Your task to perform on an android device: allow notifications from all sites in the chrome app Image 0: 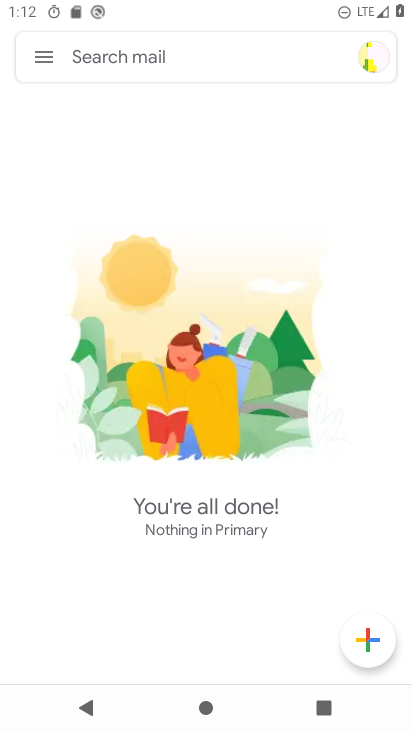
Step 0: press home button
Your task to perform on an android device: allow notifications from all sites in the chrome app Image 1: 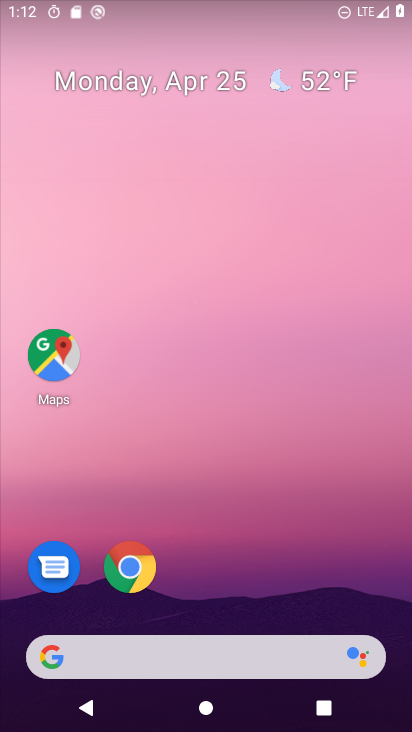
Step 1: drag from (233, 562) to (232, 49)
Your task to perform on an android device: allow notifications from all sites in the chrome app Image 2: 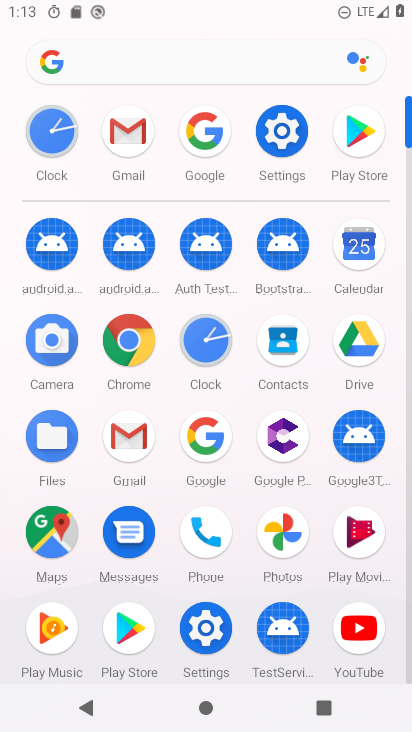
Step 2: click (134, 333)
Your task to perform on an android device: allow notifications from all sites in the chrome app Image 3: 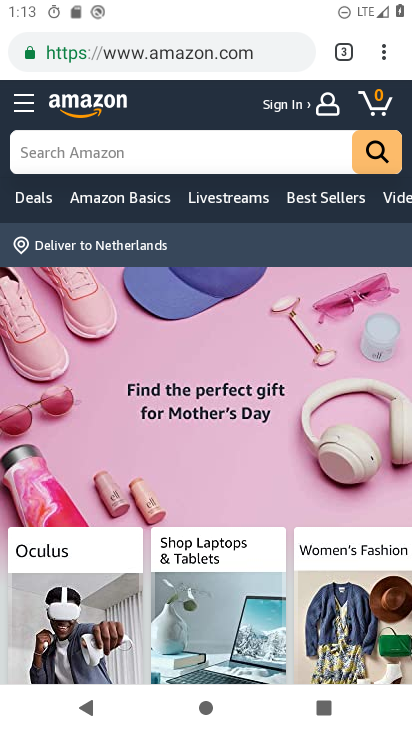
Step 3: click (385, 48)
Your task to perform on an android device: allow notifications from all sites in the chrome app Image 4: 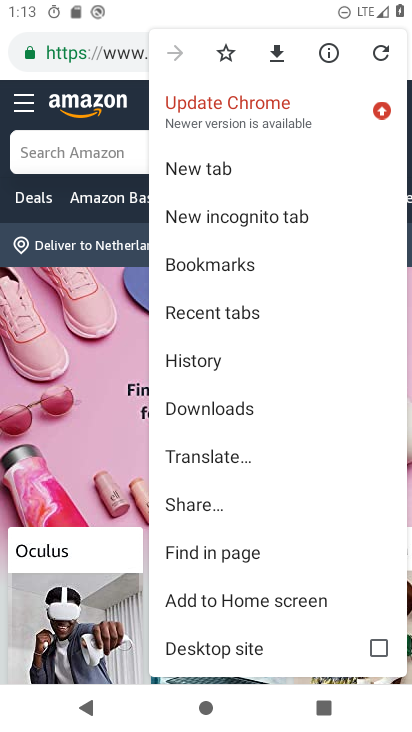
Step 4: drag from (305, 500) to (291, 238)
Your task to perform on an android device: allow notifications from all sites in the chrome app Image 5: 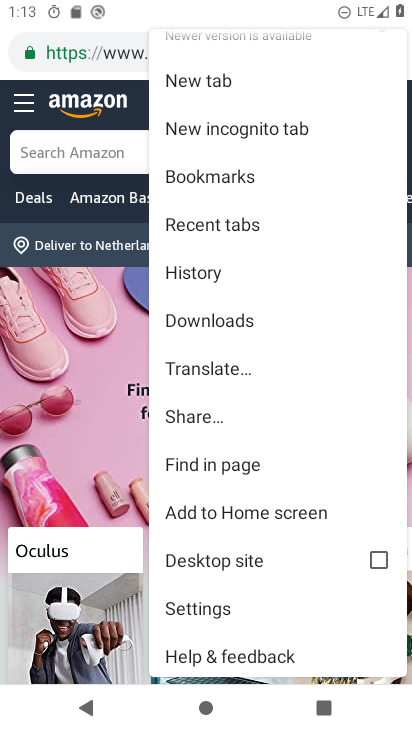
Step 5: click (235, 602)
Your task to perform on an android device: allow notifications from all sites in the chrome app Image 6: 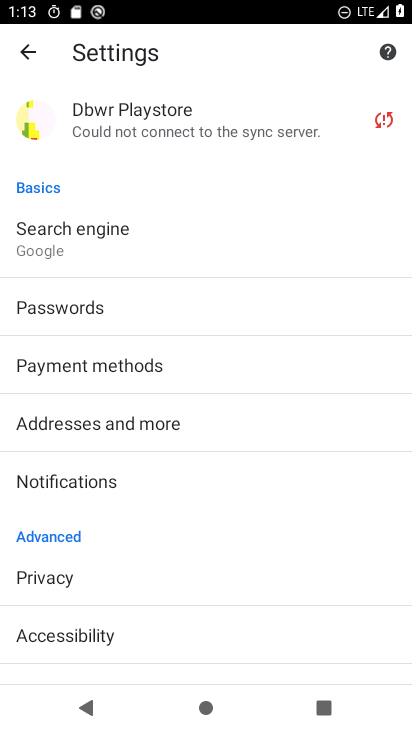
Step 6: click (216, 473)
Your task to perform on an android device: allow notifications from all sites in the chrome app Image 7: 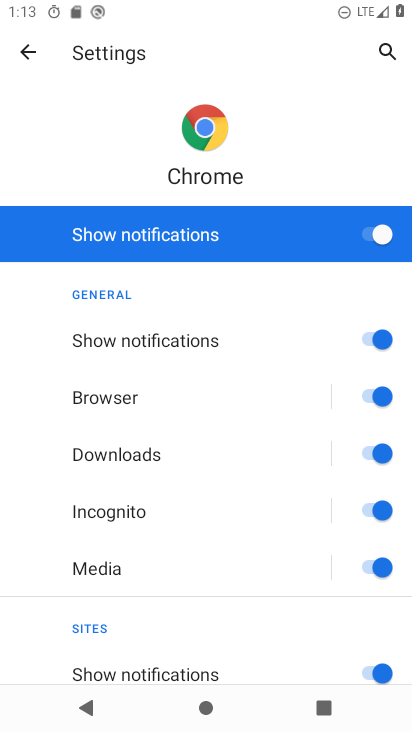
Step 7: task complete